Your task to perform on an android device: Search for the best rated headphones on amazon.com Image 0: 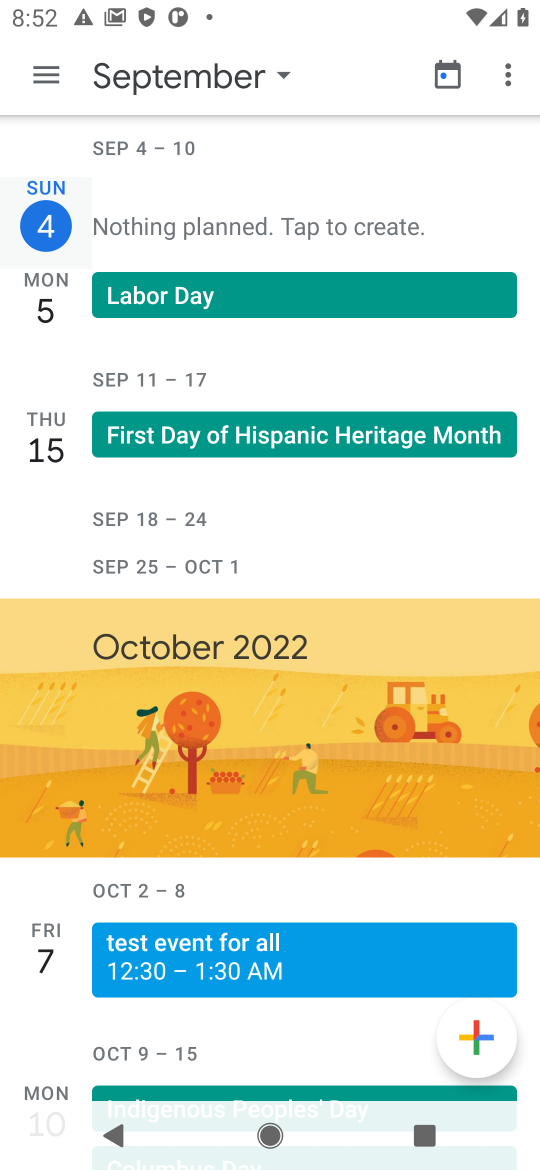
Step 0: press home button
Your task to perform on an android device: Search for the best rated headphones on amazon.com Image 1: 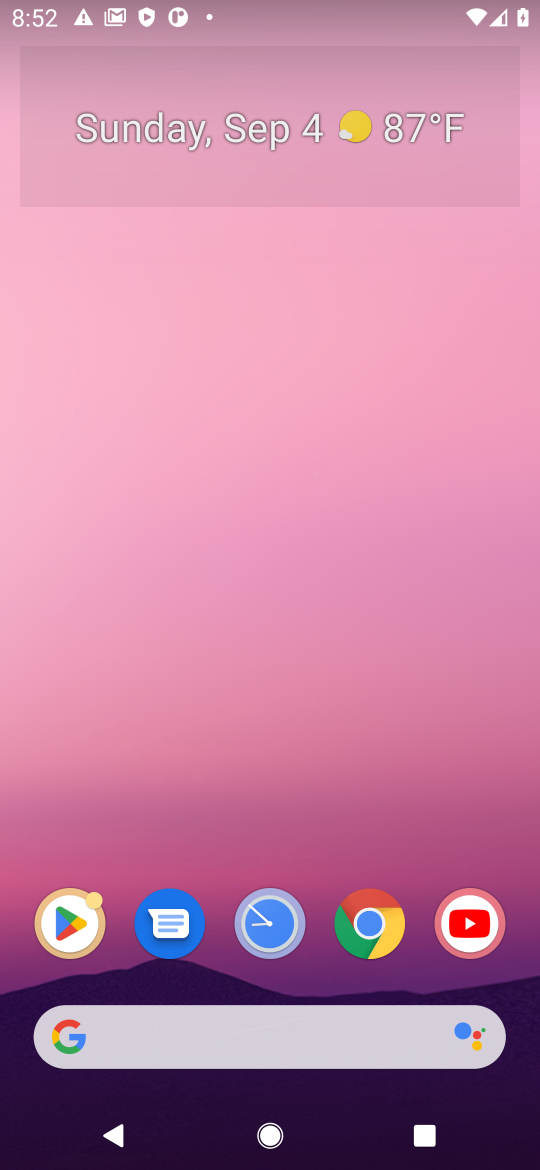
Step 1: click (382, 1028)
Your task to perform on an android device: Search for the best rated headphones on amazon.com Image 2: 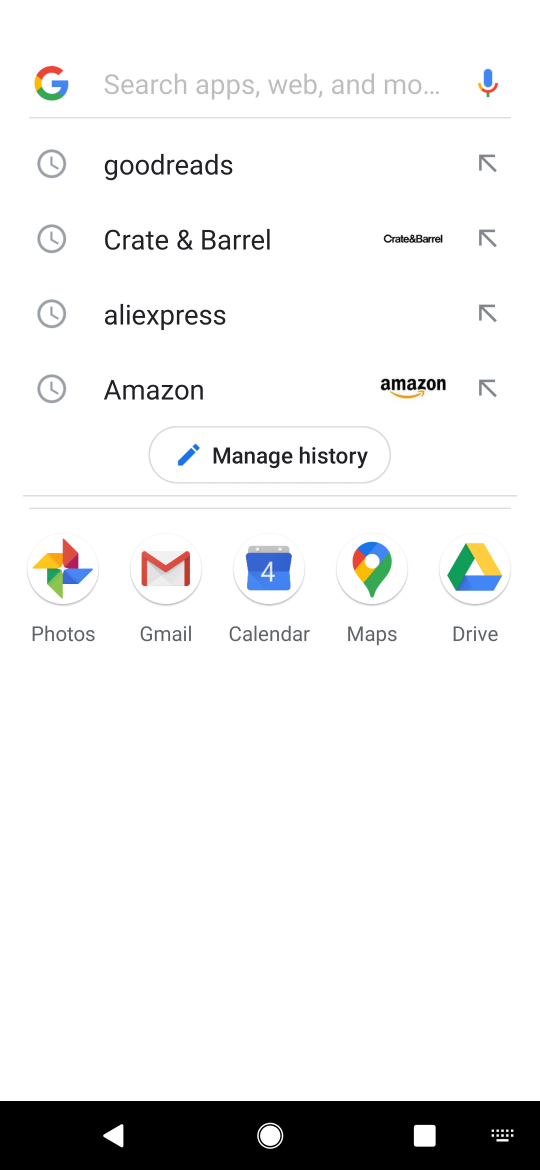
Step 2: press enter
Your task to perform on an android device: Search for the best rated headphones on amazon.com Image 3: 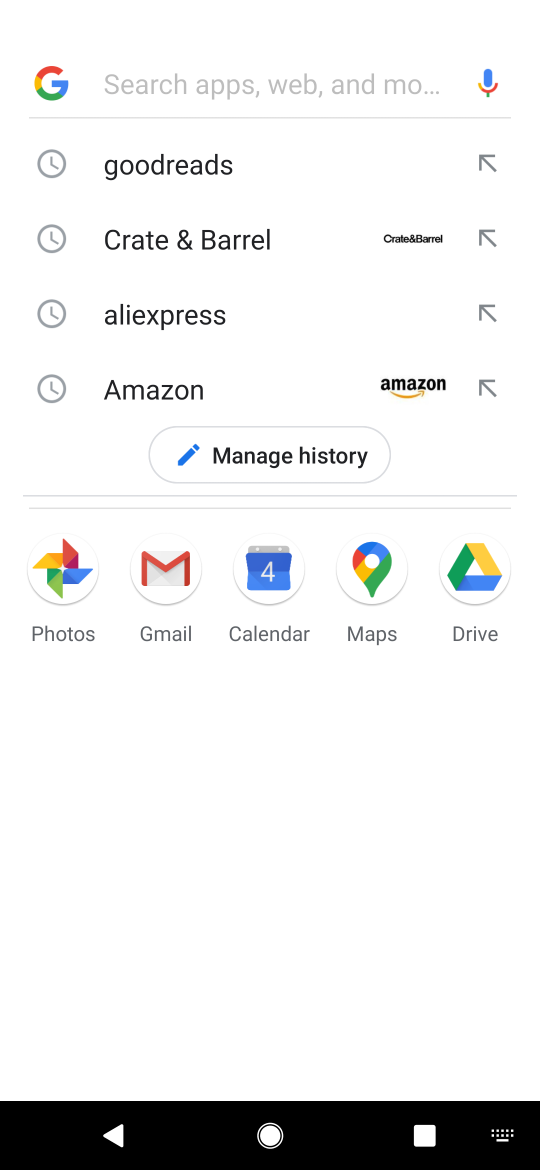
Step 3: type "amazon.com"
Your task to perform on an android device: Search for the best rated headphones on amazon.com Image 4: 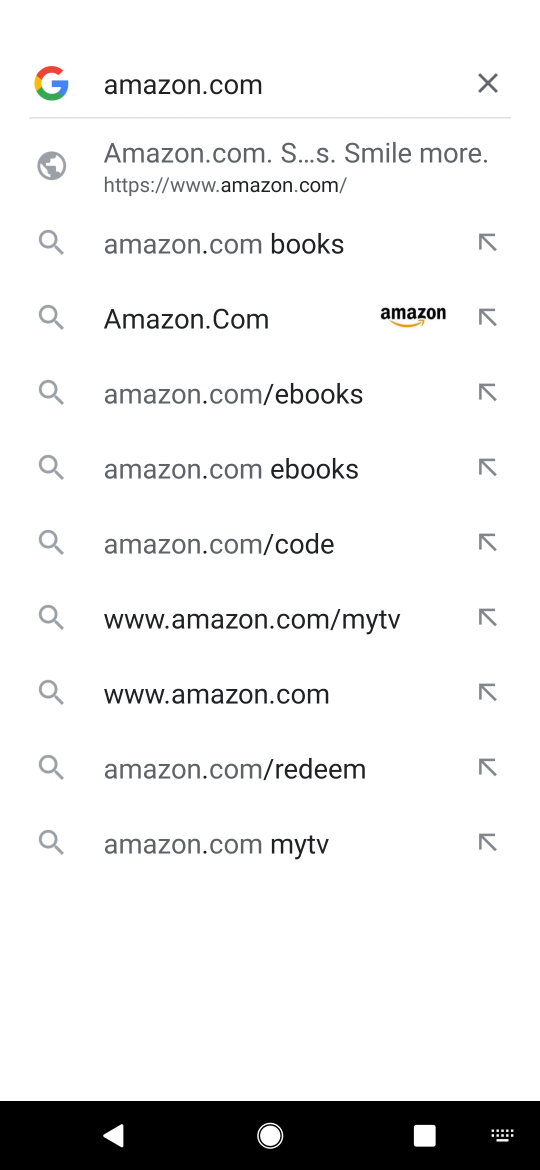
Step 4: click (242, 168)
Your task to perform on an android device: Search for the best rated headphones on amazon.com Image 5: 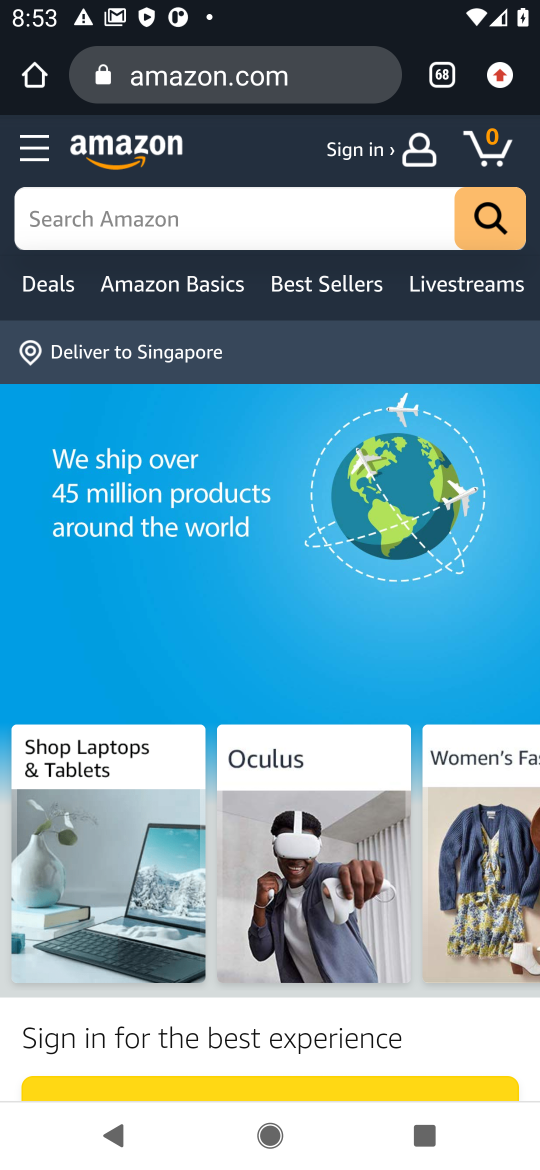
Step 5: click (75, 232)
Your task to perform on an android device: Search for the best rated headphones on amazon.com Image 6: 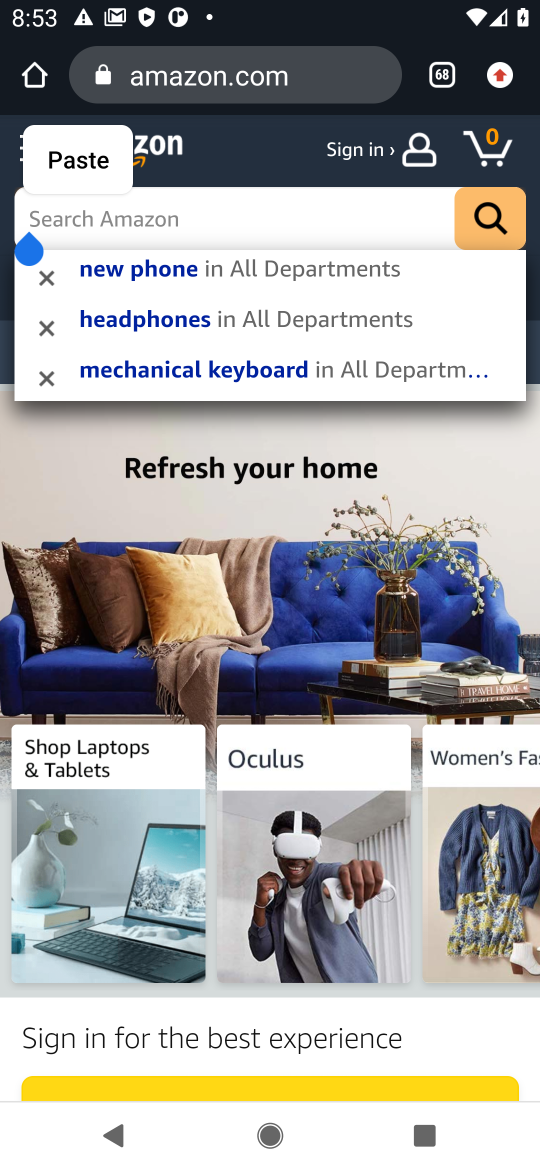
Step 6: type "best rated headphones "
Your task to perform on an android device: Search for the best rated headphones on amazon.com Image 7: 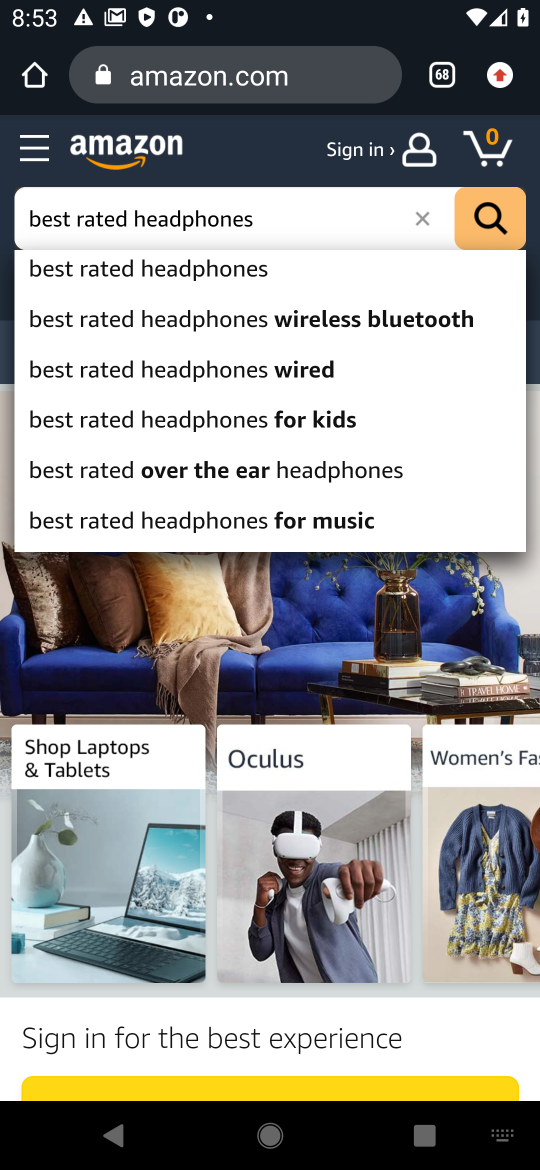
Step 7: click (228, 263)
Your task to perform on an android device: Search for the best rated headphones on amazon.com Image 8: 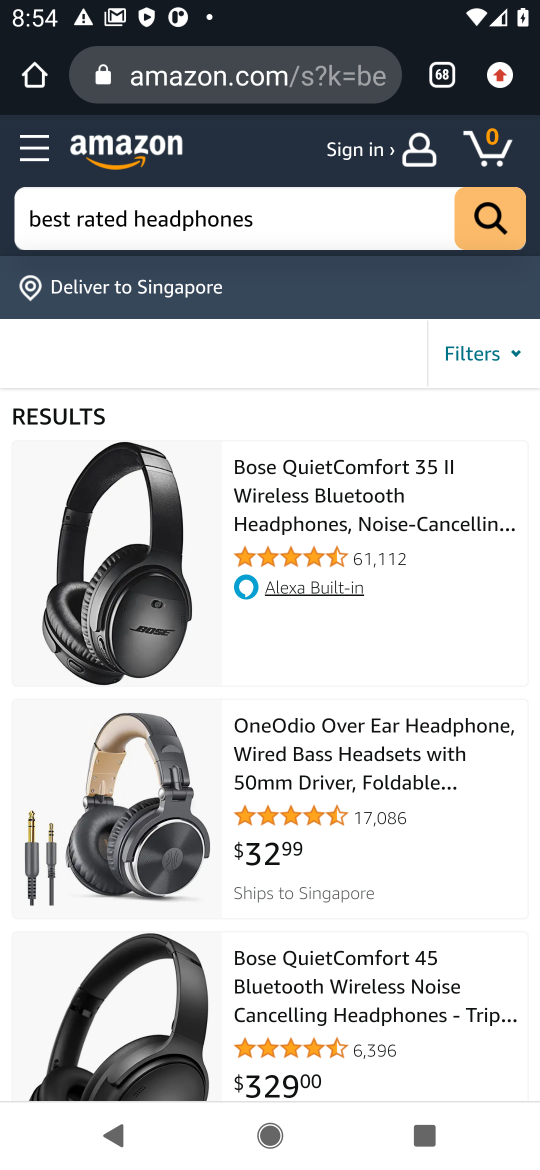
Step 8: task complete